Your task to perform on an android device: delete a single message in the gmail app Image 0: 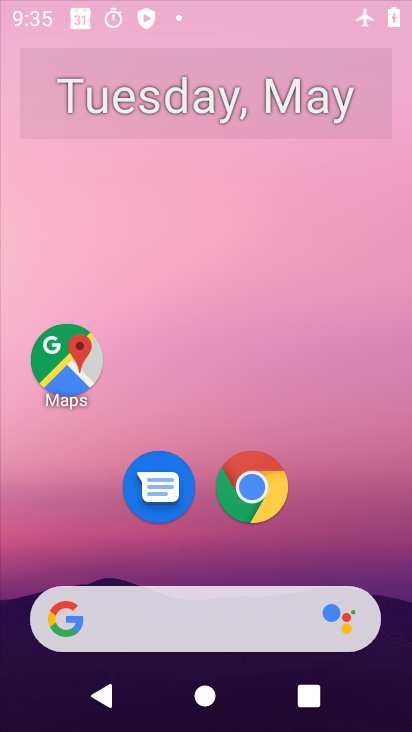
Step 0: drag from (180, 568) to (296, 202)
Your task to perform on an android device: delete a single message in the gmail app Image 1: 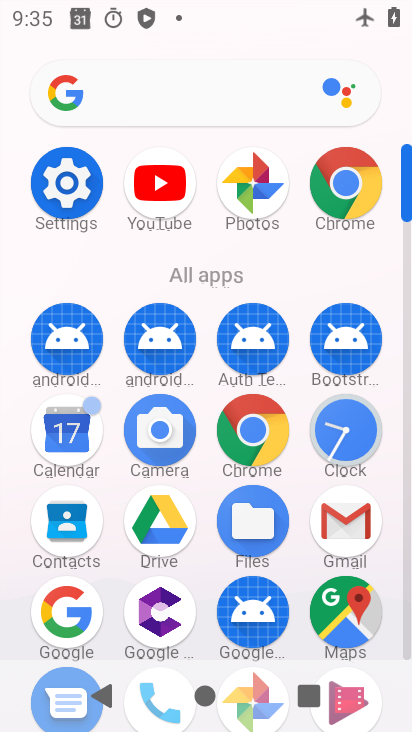
Step 1: click (354, 527)
Your task to perform on an android device: delete a single message in the gmail app Image 2: 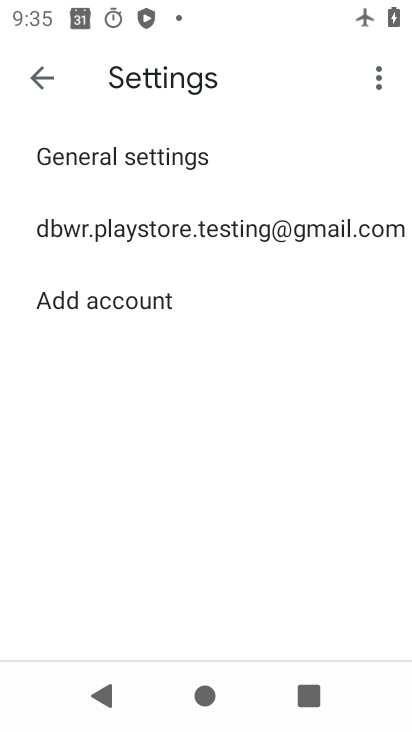
Step 2: click (34, 87)
Your task to perform on an android device: delete a single message in the gmail app Image 3: 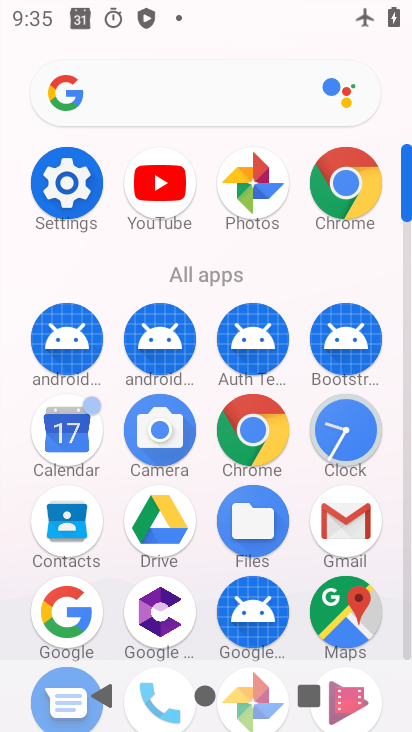
Step 3: drag from (209, 552) to (232, 168)
Your task to perform on an android device: delete a single message in the gmail app Image 4: 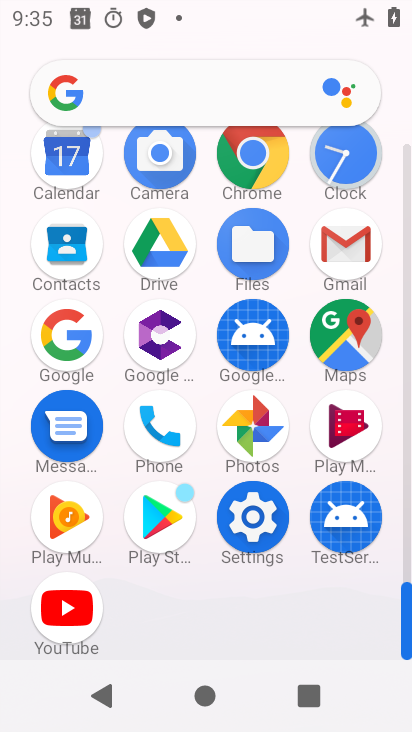
Step 4: click (343, 234)
Your task to perform on an android device: delete a single message in the gmail app Image 5: 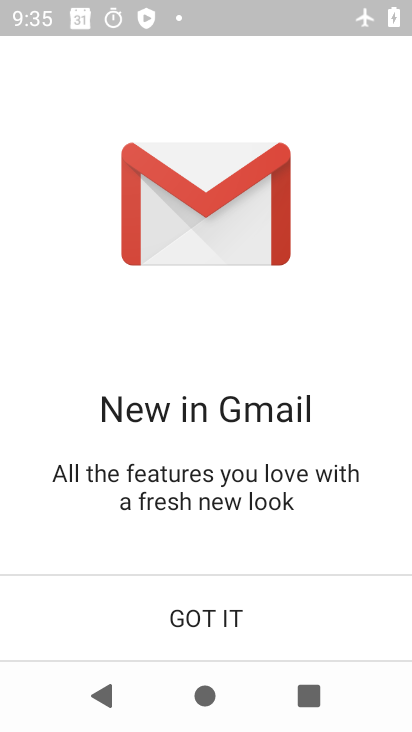
Step 5: click (201, 634)
Your task to perform on an android device: delete a single message in the gmail app Image 6: 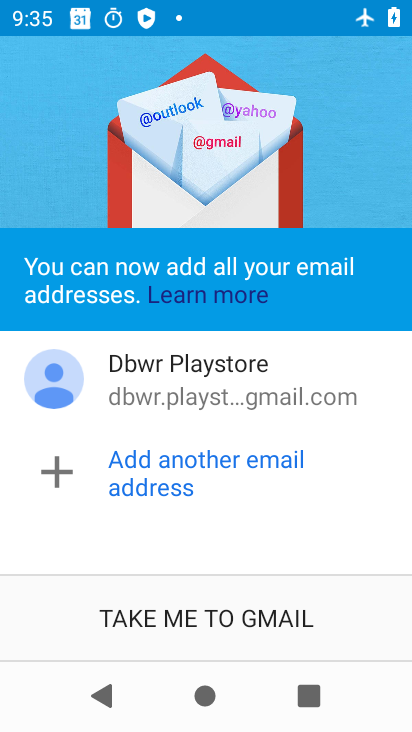
Step 6: click (199, 620)
Your task to perform on an android device: delete a single message in the gmail app Image 7: 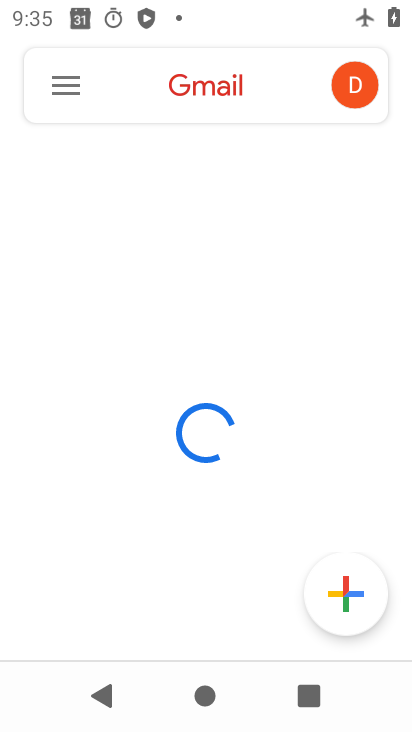
Step 7: task complete